Your task to perform on an android device: turn notification dots on Image 0: 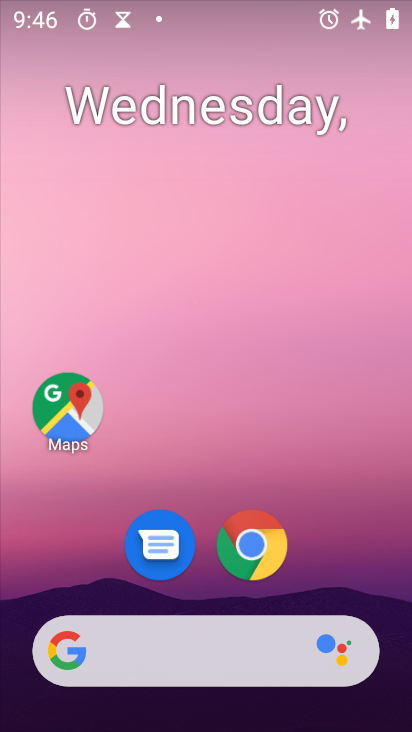
Step 0: press home button
Your task to perform on an android device: turn notification dots on Image 1: 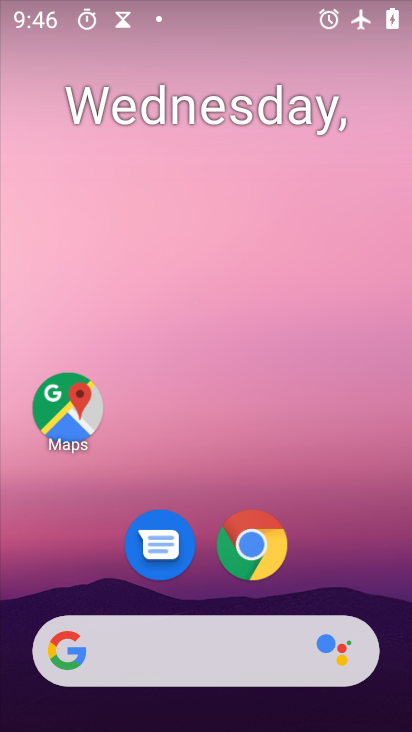
Step 1: drag from (151, 676) to (347, 118)
Your task to perform on an android device: turn notification dots on Image 2: 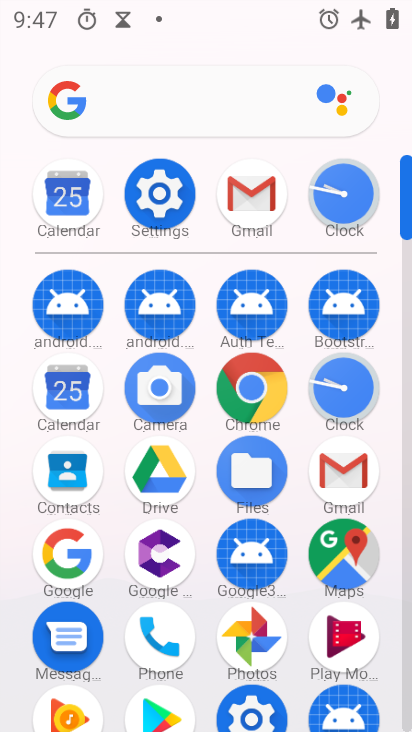
Step 2: click (163, 200)
Your task to perform on an android device: turn notification dots on Image 3: 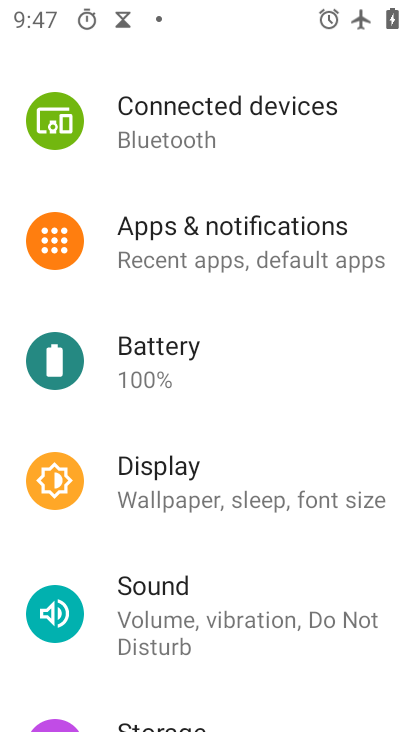
Step 3: click (193, 246)
Your task to perform on an android device: turn notification dots on Image 4: 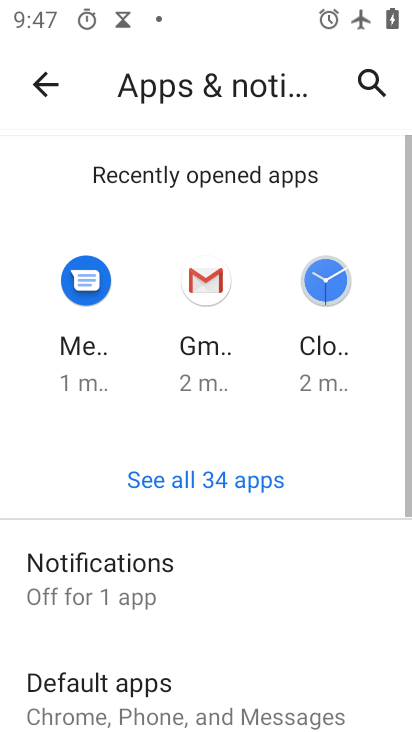
Step 4: click (138, 586)
Your task to perform on an android device: turn notification dots on Image 5: 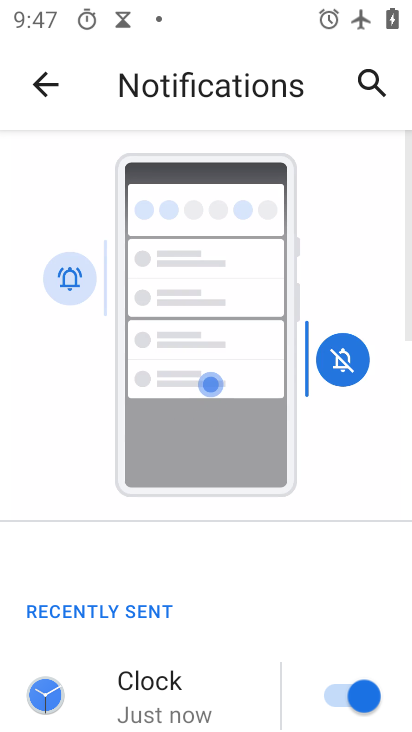
Step 5: drag from (221, 658) to (384, 107)
Your task to perform on an android device: turn notification dots on Image 6: 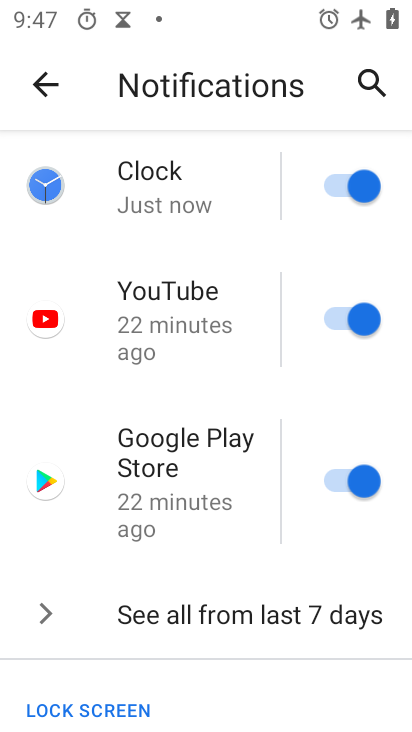
Step 6: drag from (266, 685) to (338, 171)
Your task to perform on an android device: turn notification dots on Image 7: 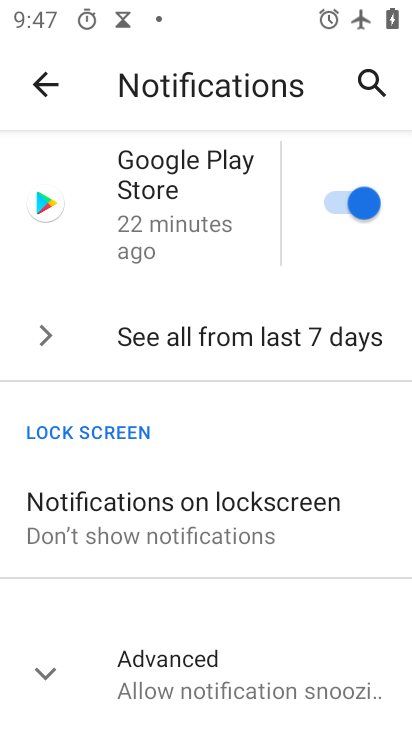
Step 7: click (196, 688)
Your task to perform on an android device: turn notification dots on Image 8: 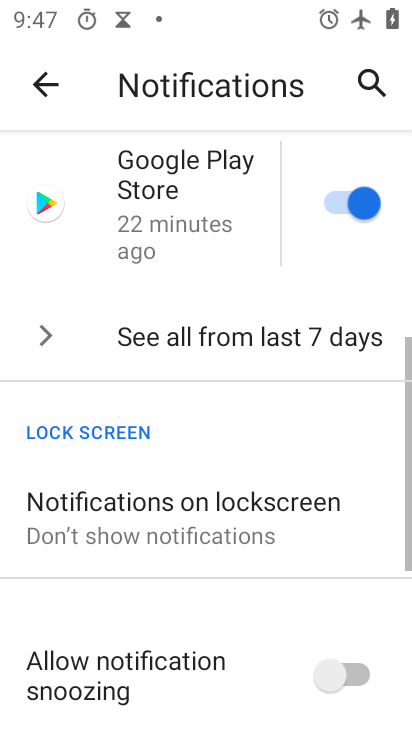
Step 8: drag from (251, 666) to (348, 201)
Your task to perform on an android device: turn notification dots on Image 9: 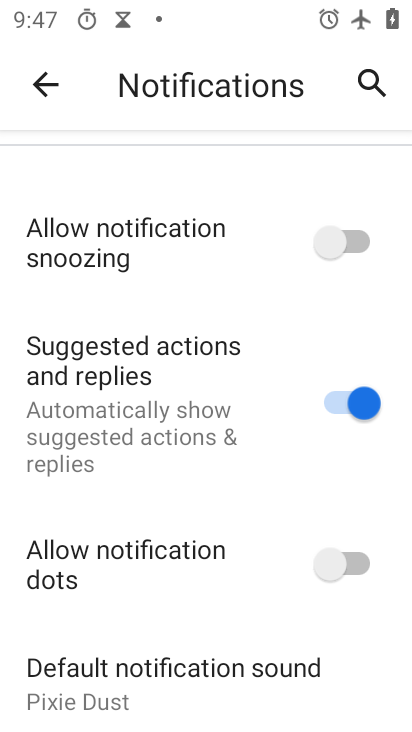
Step 9: click (352, 558)
Your task to perform on an android device: turn notification dots on Image 10: 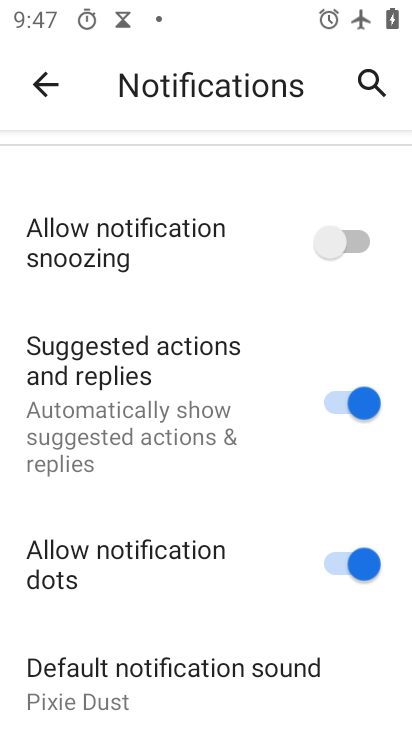
Step 10: task complete